Your task to perform on an android device: open app "Etsy: Buy & Sell Unique Items" (install if not already installed) and enter user name: "camp@inbox.com" and password: "unrelated" Image 0: 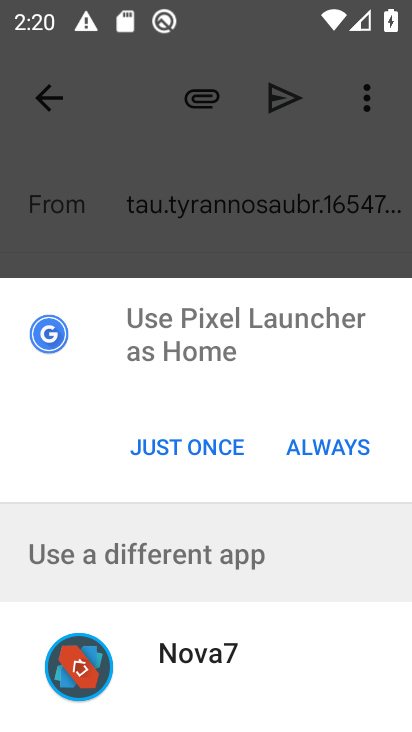
Step 0: click (193, 443)
Your task to perform on an android device: open app "Etsy: Buy & Sell Unique Items" (install if not already installed) and enter user name: "camp@inbox.com" and password: "unrelated" Image 1: 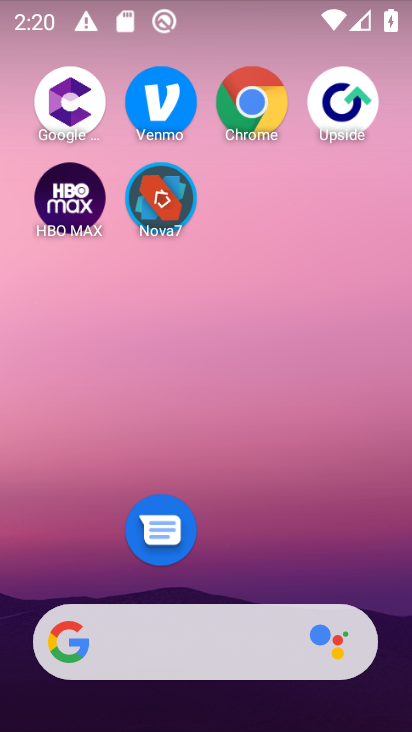
Step 1: drag from (283, 518) to (230, 234)
Your task to perform on an android device: open app "Etsy: Buy & Sell Unique Items" (install if not already installed) and enter user name: "camp@inbox.com" and password: "unrelated" Image 2: 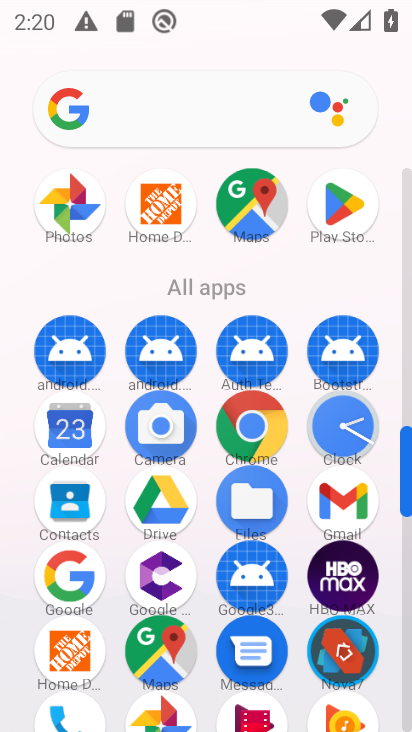
Step 2: click (341, 215)
Your task to perform on an android device: open app "Etsy: Buy & Sell Unique Items" (install if not already installed) and enter user name: "camp@inbox.com" and password: "unrelated" Image 3: 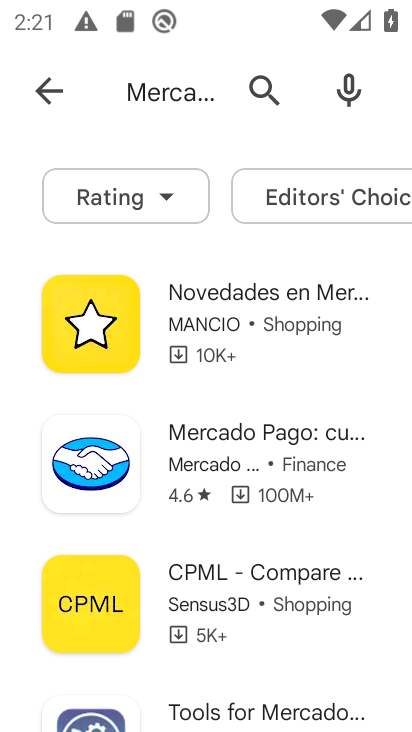
Step 3: press back button
Your task to perform on an android device: open app "Etsy: Buy & Sell Unique Items" (install if not already installed) and enter user name: "camp@inbox.com" and password: "unrelated" Image 4: 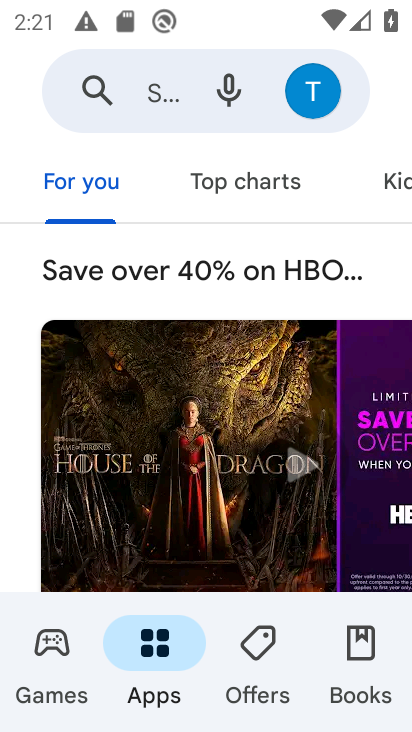
Step 4: click (127, 94)
Your task to perform on an android device: open app "Etsy: Buy & Sell Unique Items" (install if not already installed) and enter user name: "camp@inbox.com" and password: "unrelated" Image 5: 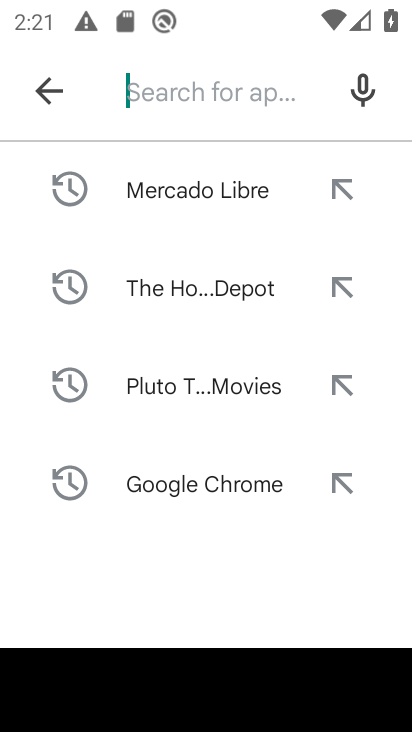
Step 5: type "Etsy: Buy & Sell Unique Items"
Your task to perform on an android device: open app "Etsy: Buy & Sell Unique Items" (install if not already installed) and enter user name: "camp@inbox.com" and password: "unrelated" Image 6: 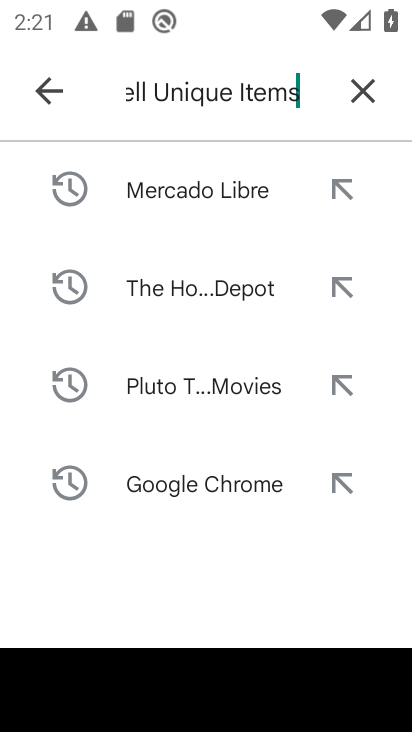
Step 6: press enter
Your task to perform on an android device: open app "Etsy: Buy & Sell Unique Items" (install if not already installed) and enter user name: "camp@inbox.com" and password: "unrelated" Image 7: 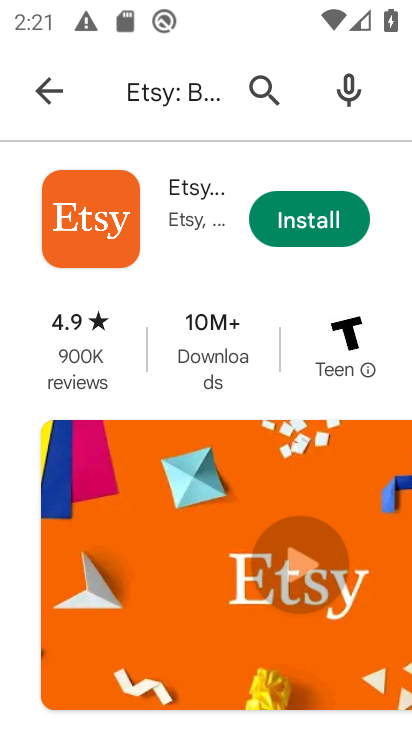
Step 7: click (300, 220)
Your task to perform on an android device: open app "Etsy: Buy & Sell Unique Items" (install if not already installed) and enter user name: "camp@inbox.com" and password: "unrelated" Image 8: 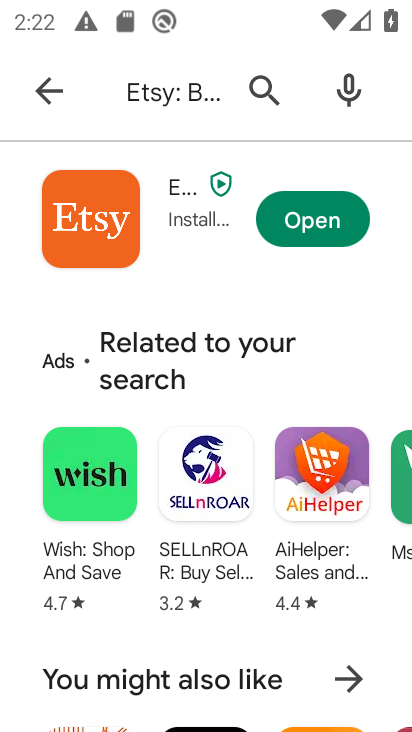
Step 8: click (313, 214)
Your task to perform on an android device: open app "Etsy: Buy & Sell Unique Items" (install if not already installed) and enter user name: "camp@inbox.com" and password: "unrelated" Image 9: 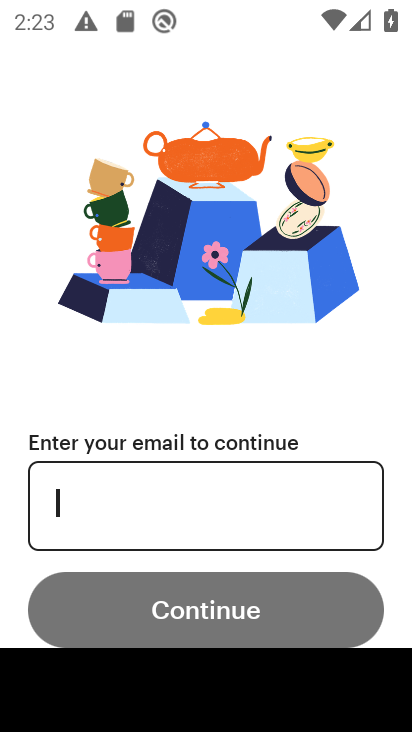
Step 9: type "camp@inbox.com"
Your task to perform on an android device: open app "Etsy: Buy & Sell Unique Items" (install if not already installed) and enter user name: "camp@inbox.com" and password: "unrelated" Image 10: 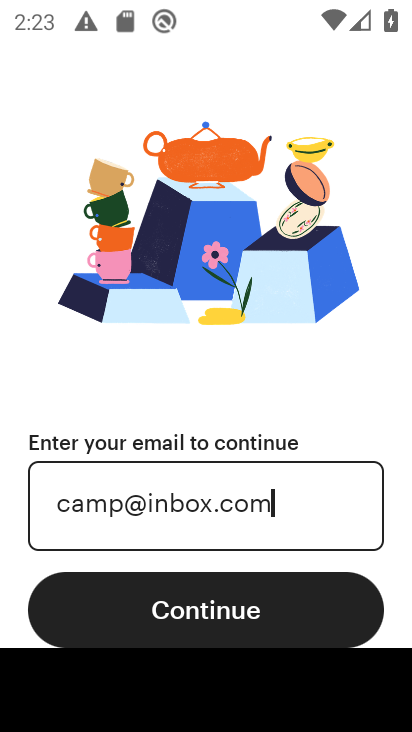
Step 10: press enter
Your task to perform on an android device: open app "Etsy: Buy & Sell Unique Items" (install if not already installed) and enter user name: "camp@inbox.com" and password: "unrelated" Image 11: 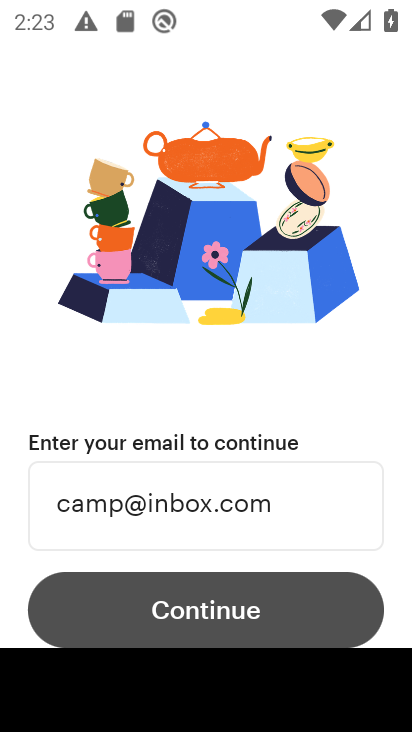
Step 11: click (220, 611)
Your task to perform on an android device: open app "Etsy: Buy & Sell Unique Items" (install if not already installed) and enter user name: "camp@inbox.com" and password: "unrelated" Image 12: 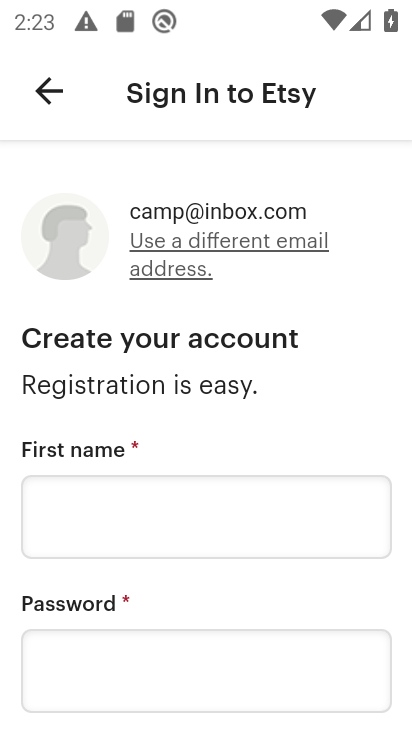
Step 12: click (154, 537)
Your task to perform on an android device: open app "Etsy: Buy & Sell Unique Items" (install if not already installed) and enter user name: "camp@inbox.com" and password: "unrelated" Image 13: 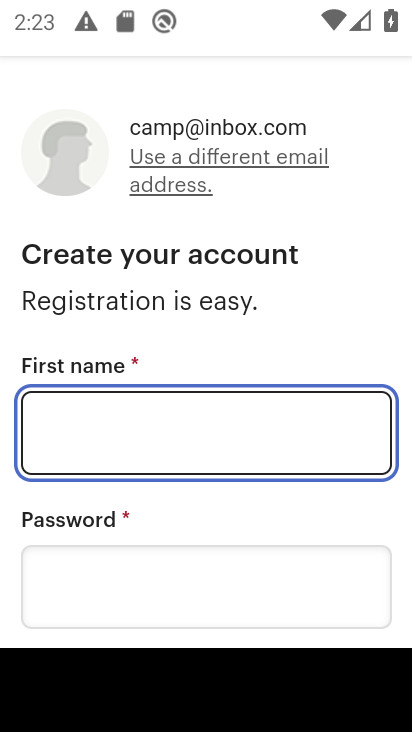
Step 13: click (114, 431)
Your task to perform on an android device: open app "Etsy: Buy & Sell Unique Items" (install if not already installed) and enter user name: "camp@inbox.com" and password: "unrelated" Image 14: 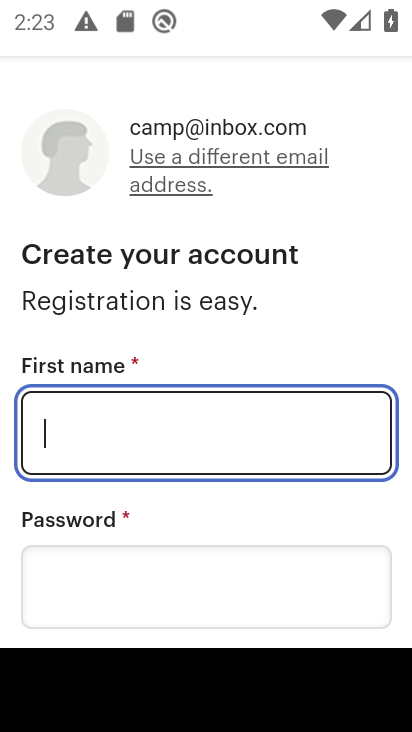
Step 14: type "camp@inbox.com"
Your task to perform on an android device: open app "Etsy: Buy & Sell Unique Items" (install if not already installed) and enter user name: "camp@inbox.com" and password: "unrelated" Image 15: 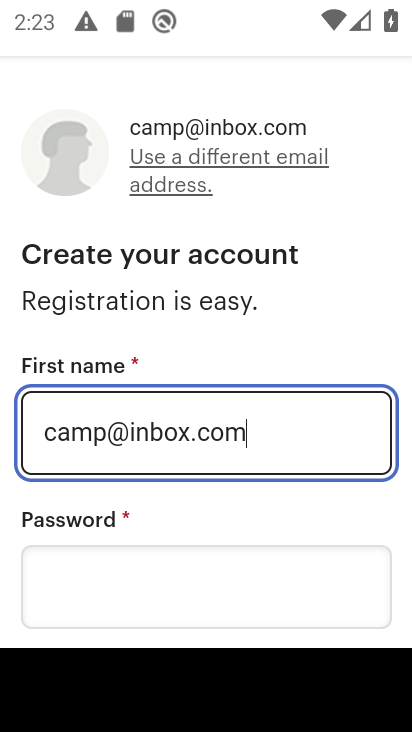
Step 15: press enter
Your task to perform on an android device: open app "Etsy: Buy & Sell Unique Items" (install if not already installed) and enter user name: "camp@inbox.com" and password: "unrelated" Image 16: 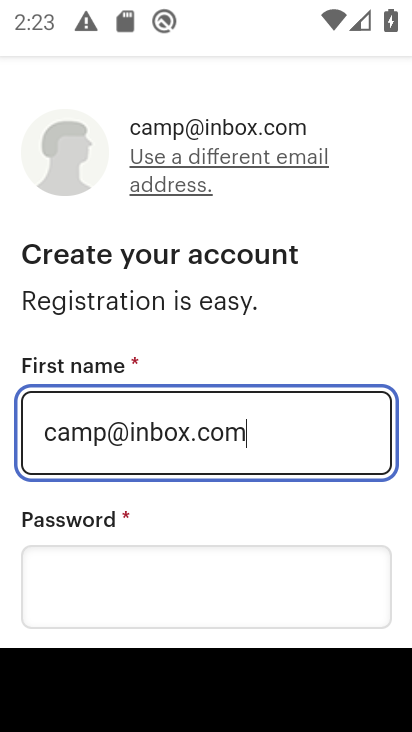
Step 16: click (69, 584)
Your task to perform on an android device: open app "Etsy: Buy & Sell Unique Items" (install if not already installed) and enter user name: "camp@inbox.com" and password: "unrelated" Image 17: 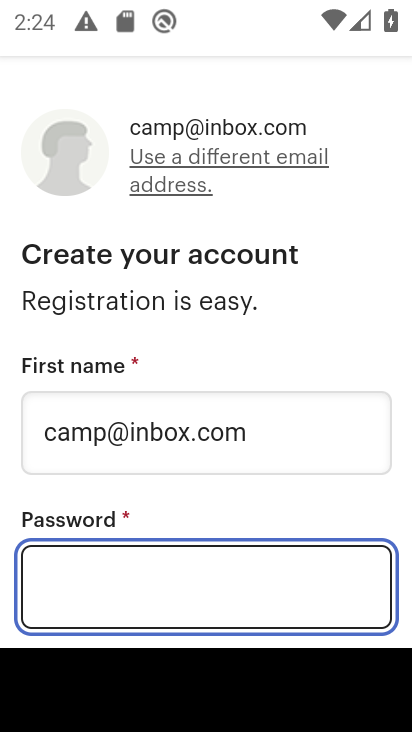
Step 17: type "unrelated"
Your task to perform on an android device: open app "Etsy: Buy & Sell Unique Items" (install if not already installed) and enter user name: "camp@inbox.com" and password: "unrelated" Image 18: 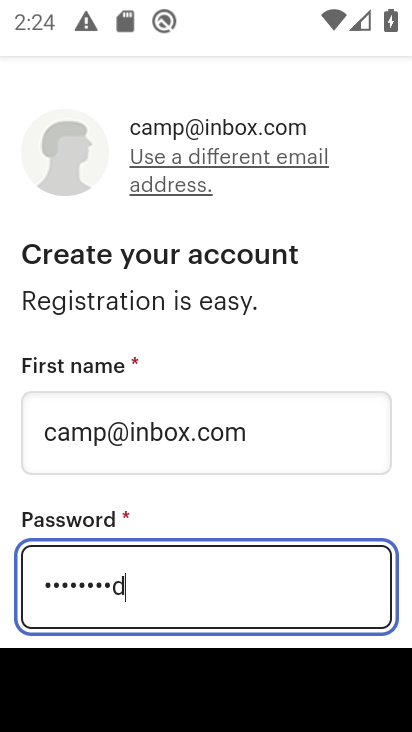
Step 18: press enter
Your task to perform on an android device: open app "Etsy: Buy & Sell Unique Items" (install if not already installed) and enter user name: "camp@inbox.com" and password: "unrelated" Image 19: 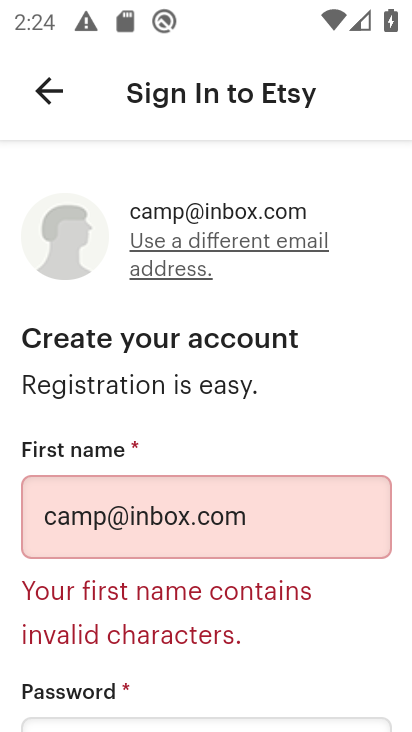
Step 19: task complete